Your task to perform on an android device: Go to network settings Image 0: 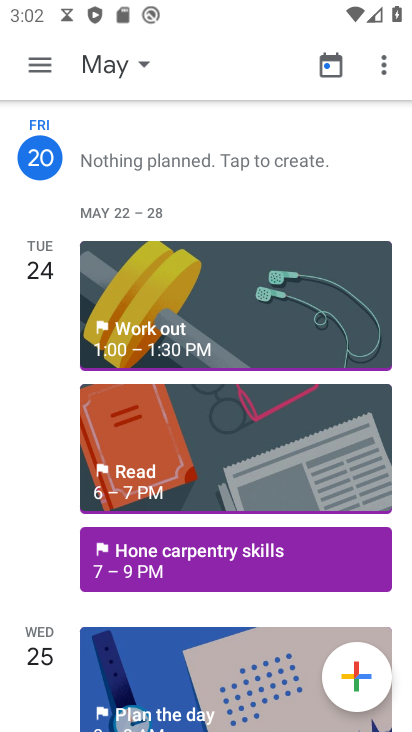
Step 0: press home button
Your task to perform on an android device: Go to network settings Image 1: 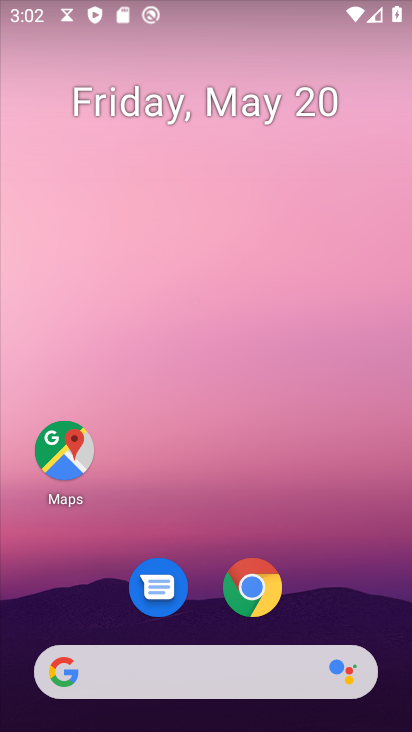
Step 1: drag from (389, 597) to (313, 60)
Your task to perform on an android device: Go to network settings Image 2: 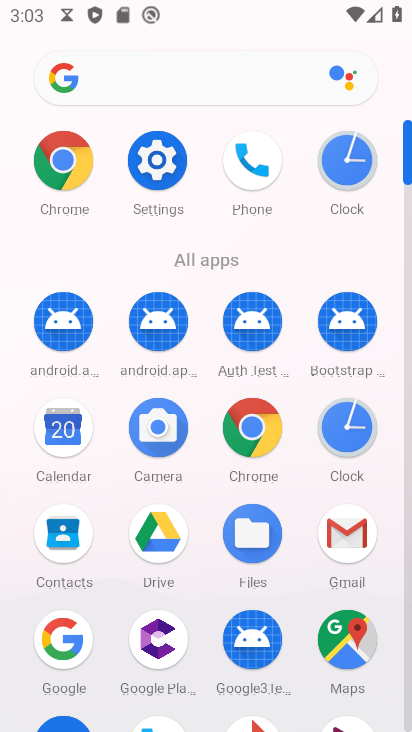
Step 2: click (143, 169)
Your task to perform on an android device: Go to network settings Image 3: 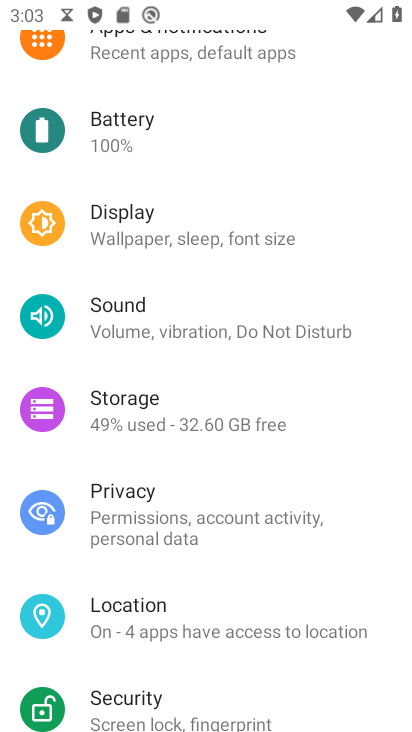
Step 3: drag from (153, 92) to (172, 609)
Your task to perform on an android device: Go to network settings Image 4: 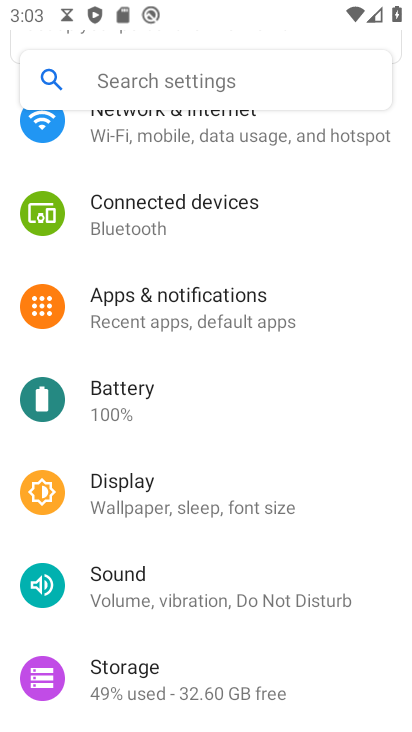
Step 4: drag from (167, 169) to (202, 455)
Your task to perform on an android device: Go to network settings Image 5: 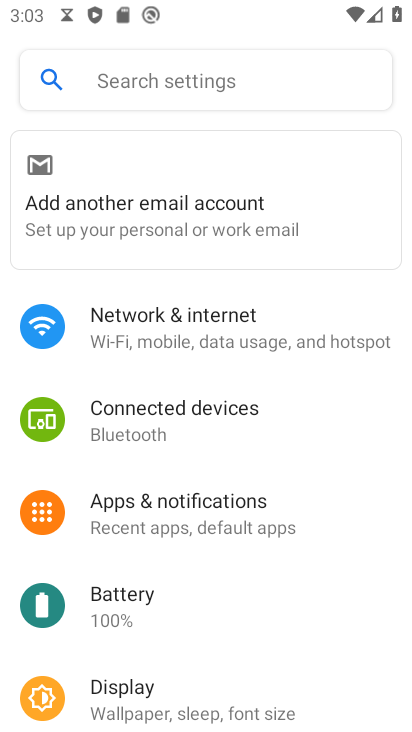
Step 5: click (194, 324)
Your task to perform on an android device: Go to network settings Image 6: 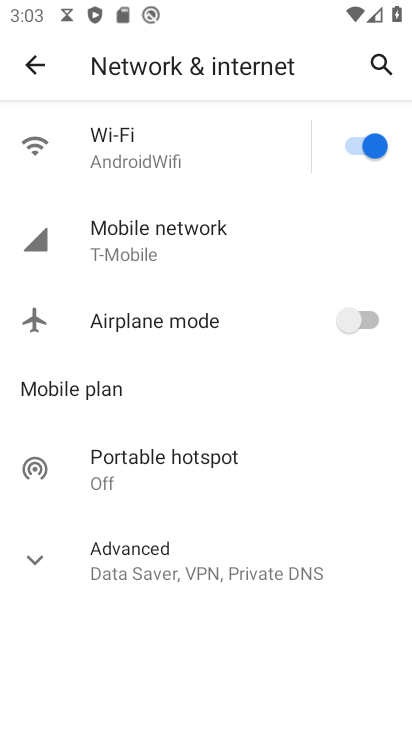
Step 6: task complete